Your task to perform on an android device: What is the news today? Image 0: 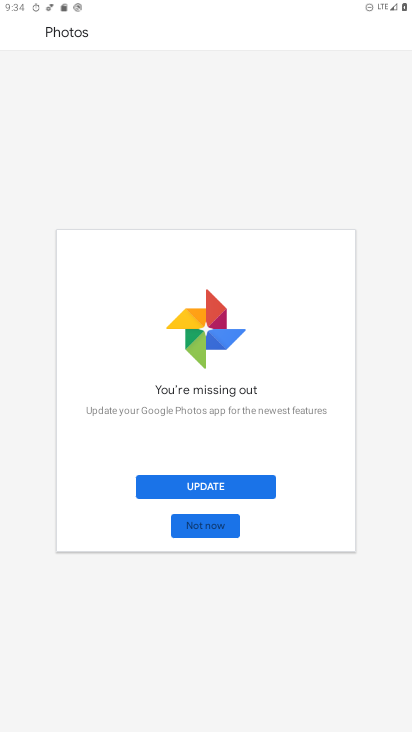
Step 0: press home button
Your task to perform on an android device: What is the news today? Image 1: 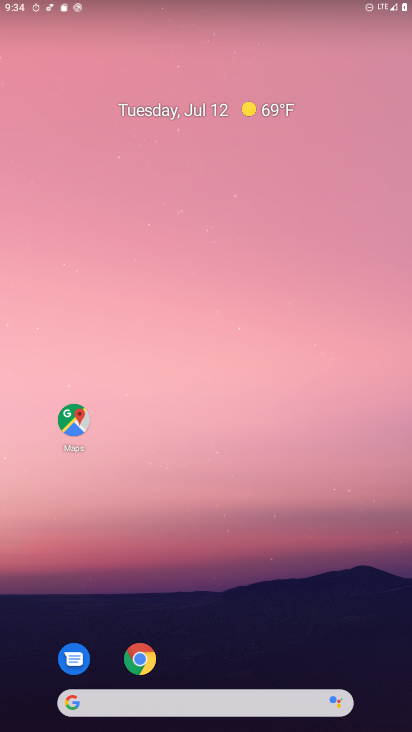
Step 1: task complete